Your task to perform on an android device: Go to Google Image 0: 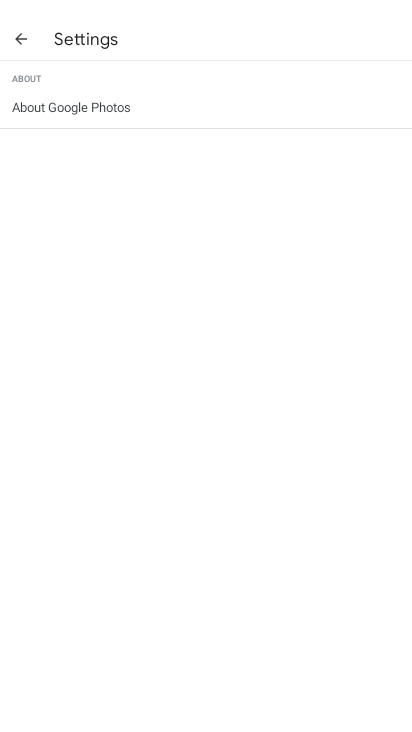
Step 0: press home button
Your task to perform on an android device: Go to Google Image 1: 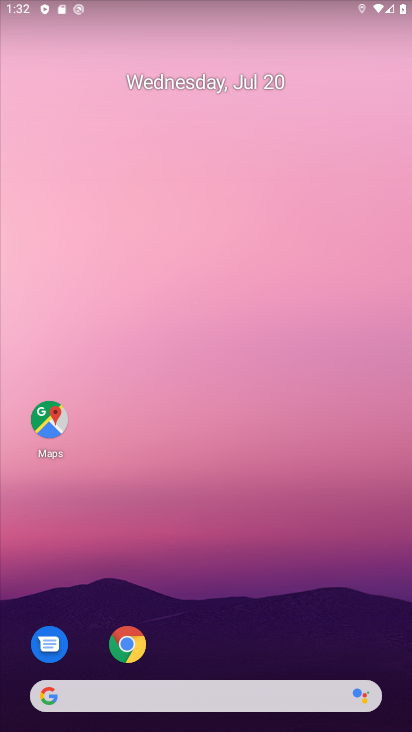
Step 1: drag from (242, 669) to (231, 105)
Your task to perform on an android device: Go to Google Image 2: 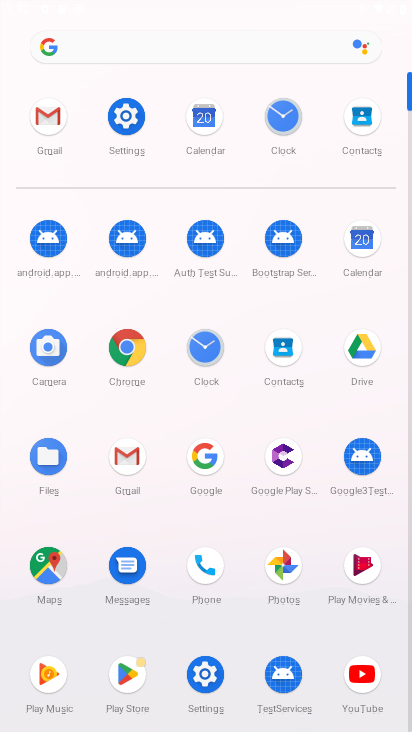
Step 2: click (204, 464)
Your task to perform on an android device: Go to Google Image 3: 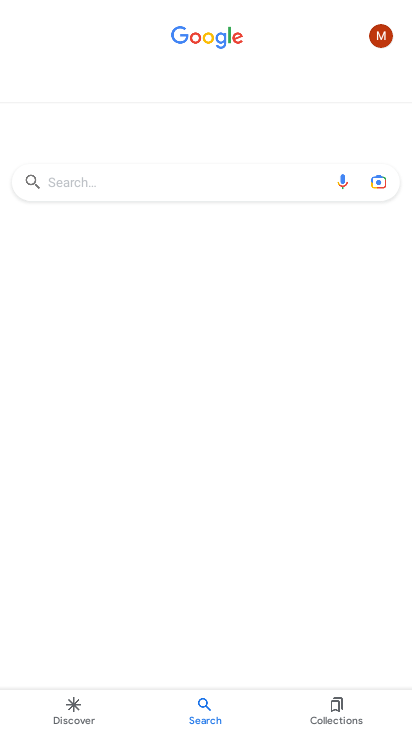
Step 3: task complete